Your task to perform on an android device: make emails show in primary in the gmail app Image 0: 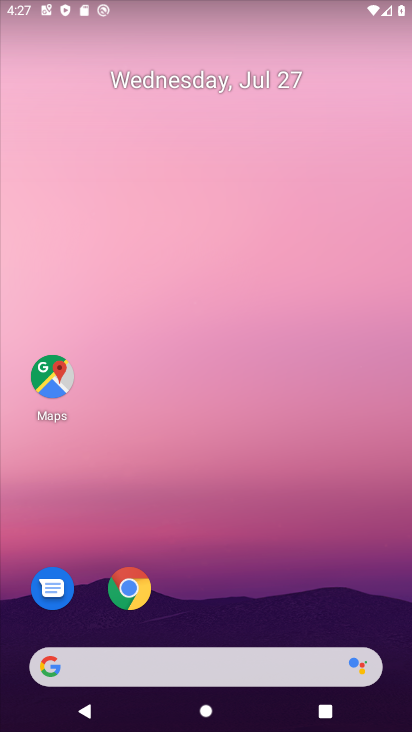
Step 0: drag from (241, 716) to (260, 34)
Your task to perform on an android device: make emails show in primary in the gmail app Image 1: 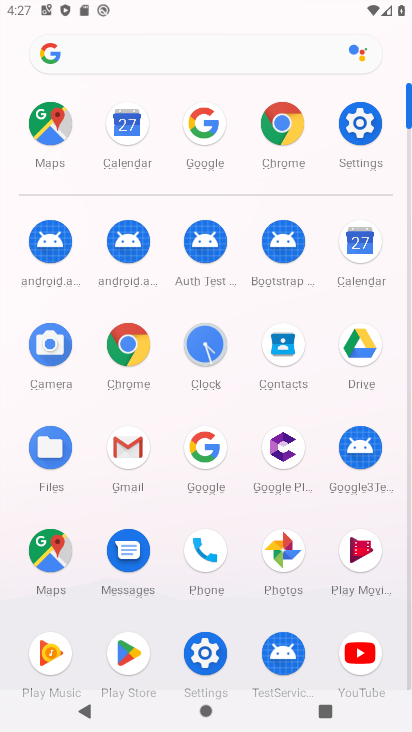
Step 1: click (128, 445)
Your task to perform on an android device: make emails show in primary in the gmail app Image 2: 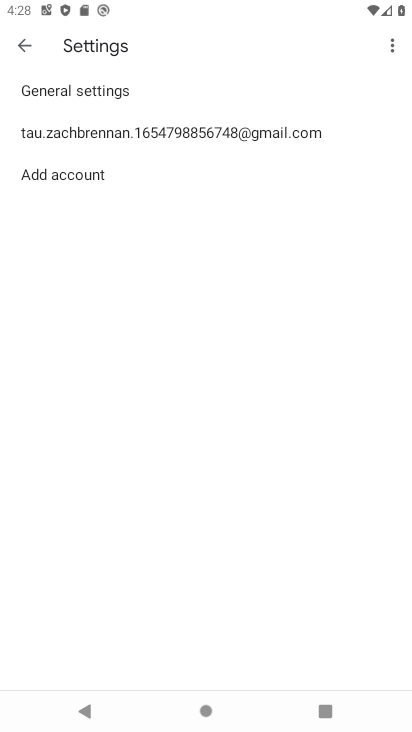
Step 2: click (129, 133)
Your task to perform on an android device: make emails show in primary in the gmail app Image 3: 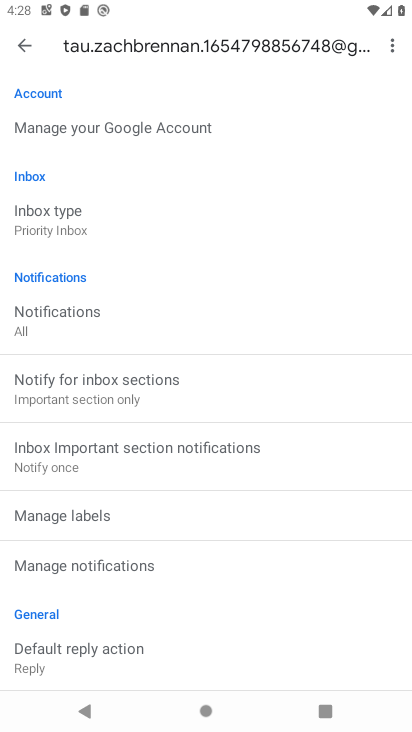
Step 3: click (50, 225)
Your task to perform on an android device: make emails show in primary in the gmail app Image 4: 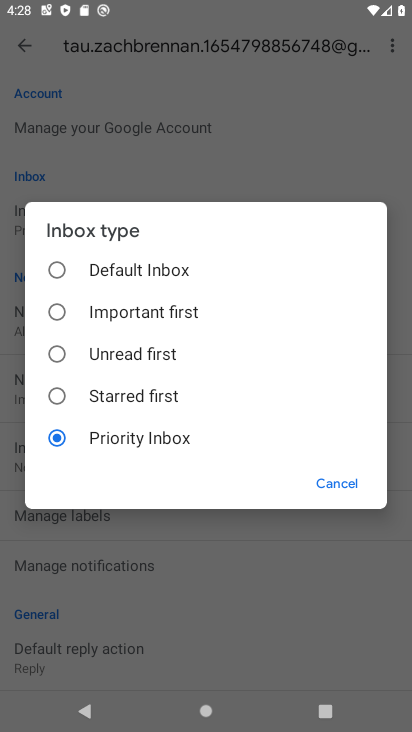
Step 4: click (60, 270)
Your task to perform on an android device: make emails show in primary in the gmail app Image 5: 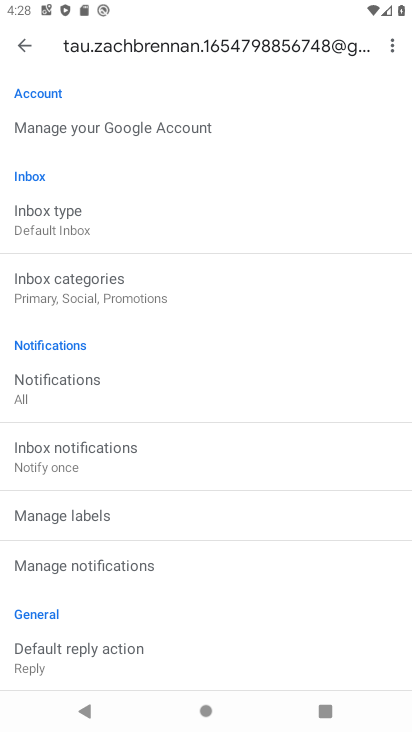
Step 5: click (63, 296)
Your task to perform on an android device: make emails show in primary in the gmail app Image 6: 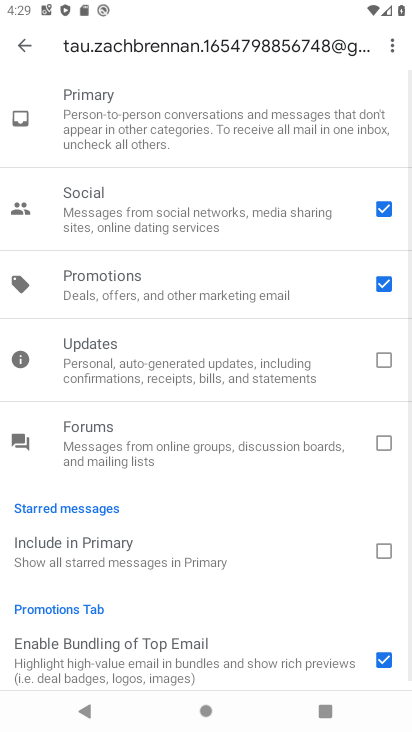
Step 6: click (379, 285)
Your task to perform on an android device: make emails show in primary in the gmail app Image 7: 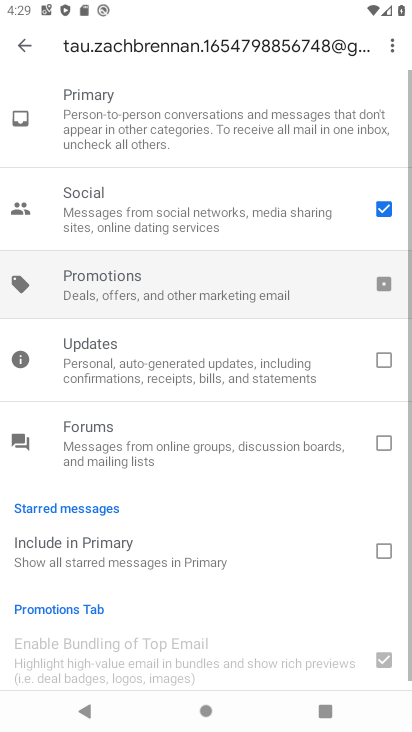
Step 7: click (386, 204)
Your task to perform on an android device: make emails show in primary in the gmail app Image 8: 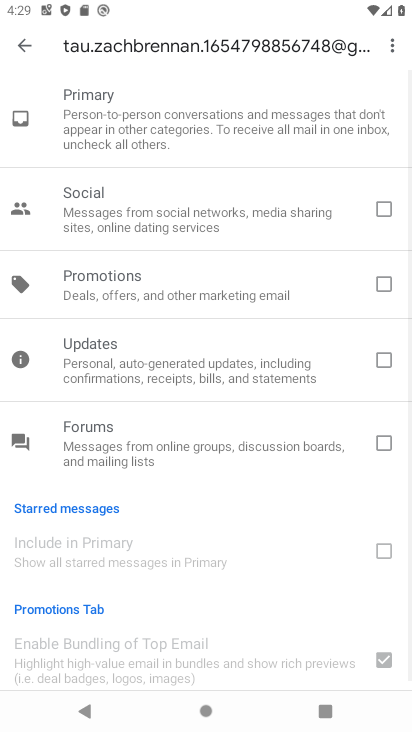
Step 8: click (22, 45)
Your task to perform on an android device: make emails show in primary in the gmail app Image 9: 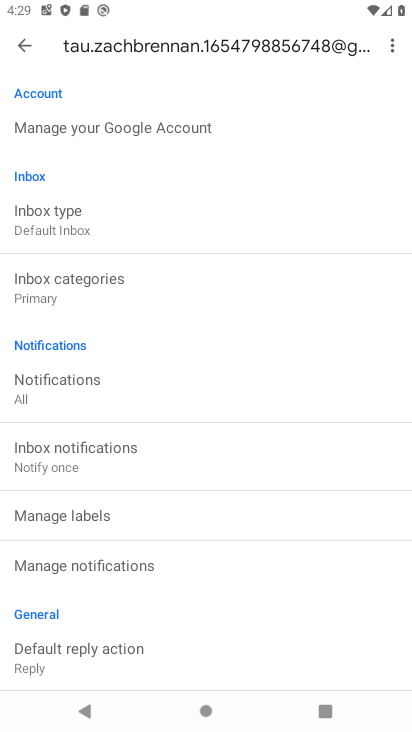
Step 9: task complete